Your task to perform on an android device: delete the emails in spam in the gmail app Image 0: 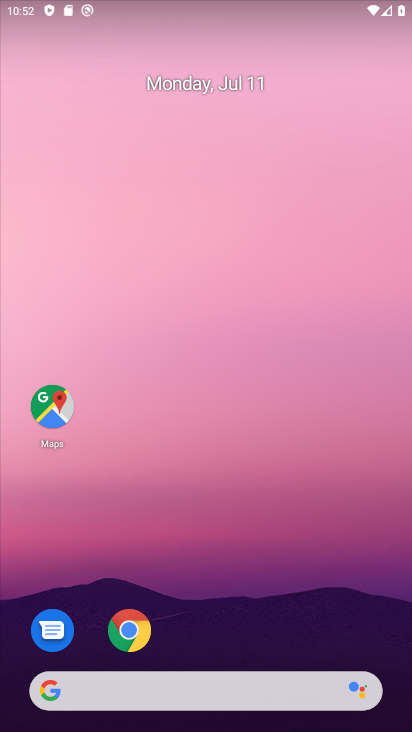
Step 0: drag from (239, 650) to (197, 310)
Your task to perform on an android device: delete the emails in spam in the gmail app Image 1: 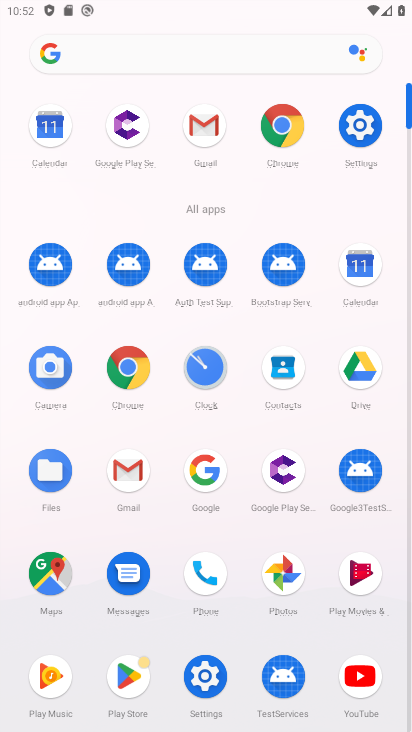
Step 1: click (204, 120)
Your task to perform on an android device: delete the emails in spam in the gmail app Image 2: 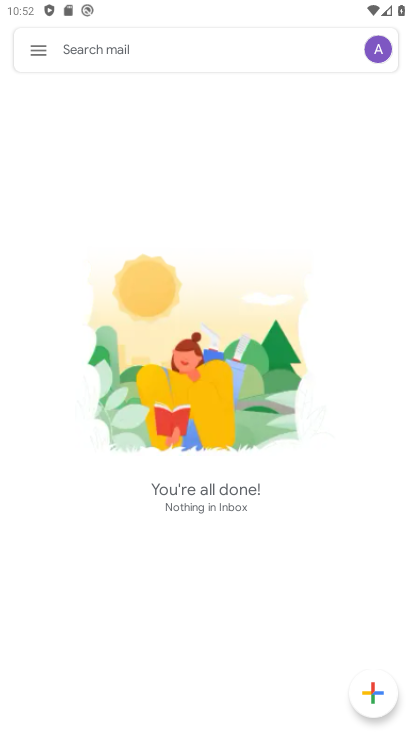
Step 2: click (35, 56)
Your task to perform on an android device: delete the emails in spam in the gmail app Image 3: 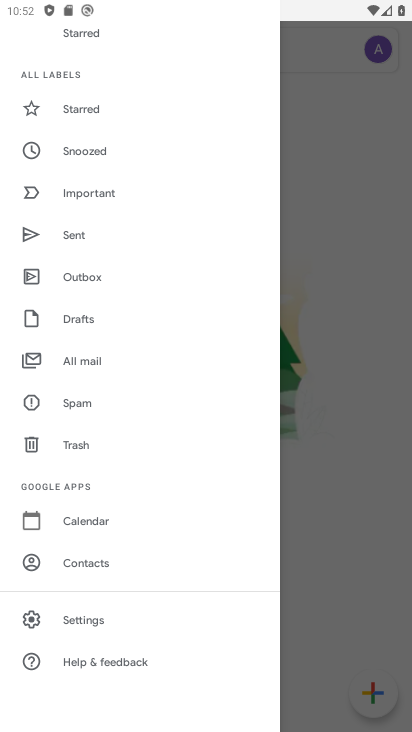
Step 3: click (92, 399)
Your task to perform on an android device: delete the emails in spam in the gmail app Image 4: 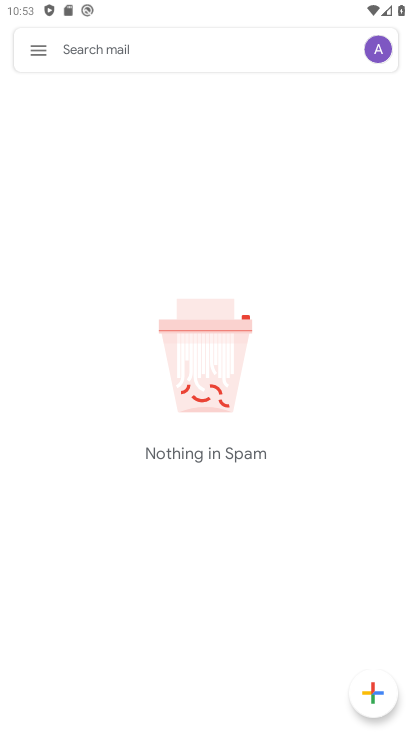
Step 4: task complete